Your task to perform on an android device: Do I have any events tomorrow? Image 0: 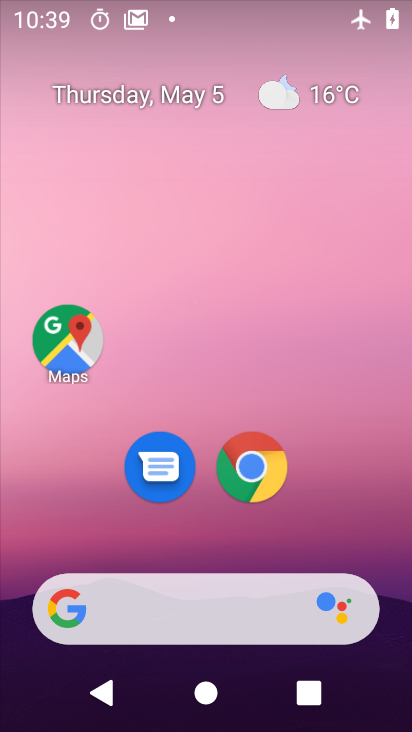
Step 0: drag from (208, 546) to (226, 80)
Your task to perform on an android device: Do I have any events tomorrow? Image 1: 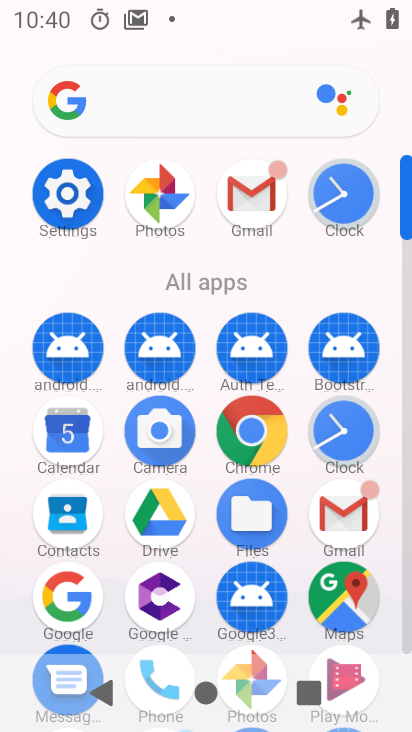
Step 1: click (53, 439)
Your task to perform on an android device: Do I have any events tomorrow? Image 2: 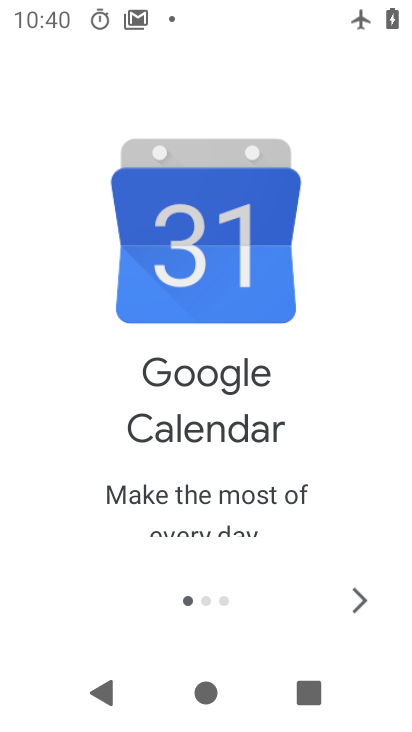
Step 2: click (358, 601)
Your task to perform on an android device: Do I have any events tomorrow? Image 3: 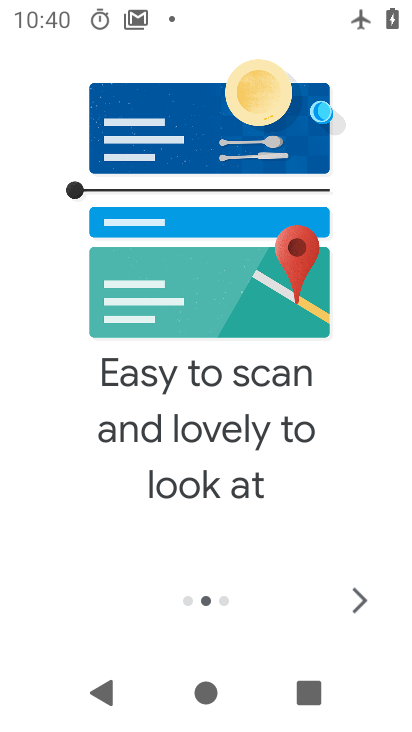
Step 3: click (358, 601)
Your task to perform on an android device: Do I have any events tomorrow? Image 4: 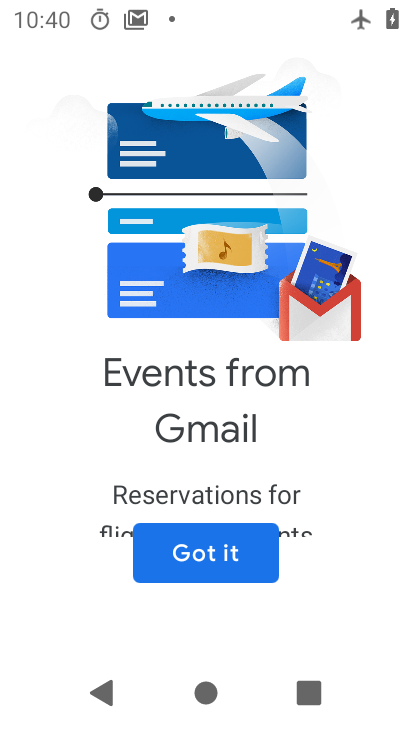
Step 4: click (239, 564)
Your task to perform on an android device: Do I have any events tomorrow? Image 5: 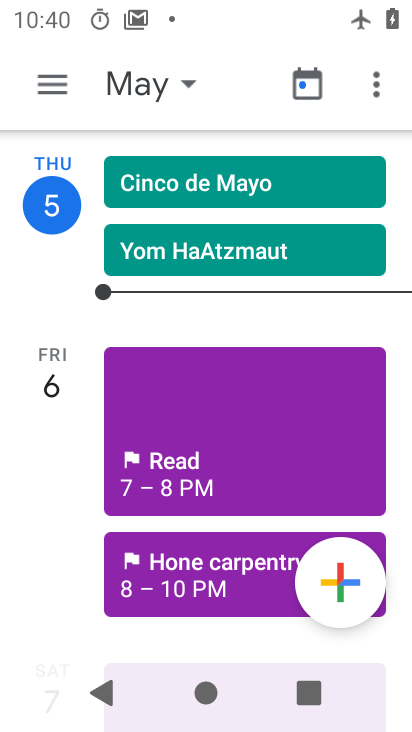
Step 5: click (44, 88)
Your task to perform on an android device: Do I have any events tomorrow? Image 6: 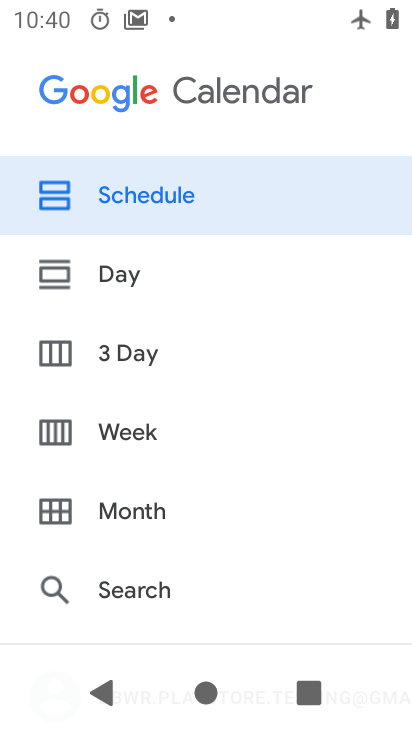
Step 6: drag from (158, 511) to (194, 246)
Your task to perform on an android device: Do I have any events tomorrow? Image 7: 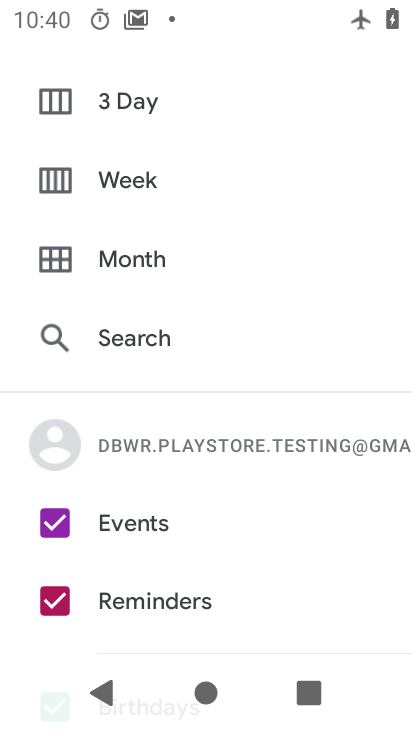
Step 7: drag from (214, 647) to (216, 335)
Your task to perform on an android device: Do I have any events tomorrow? Image 8: 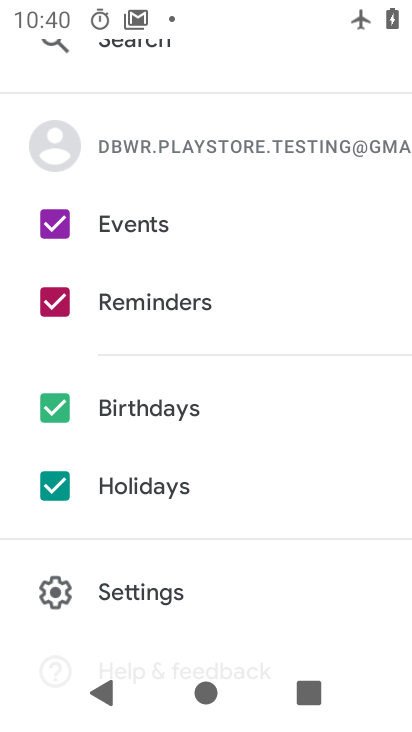
Step 8: click (51, 477)
Your task to perform on an android device: Do I have any events tomorrow? Image 9: 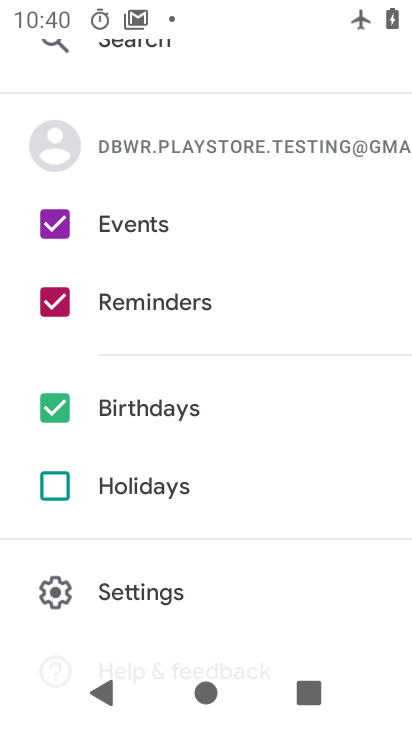
Step 9: click (58, 414)
Your task to perform on an android device: Do I have any events tomorrow? Image 10: 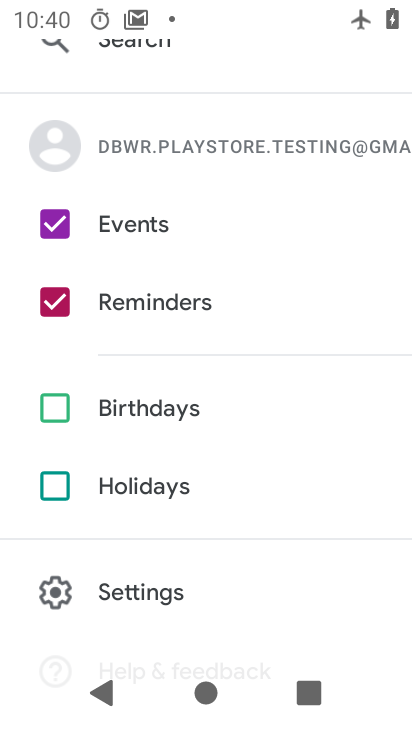
Step 10: click (56, 303)
Your task to perform on an android device: Do I have any events tomorrow? Image 11: 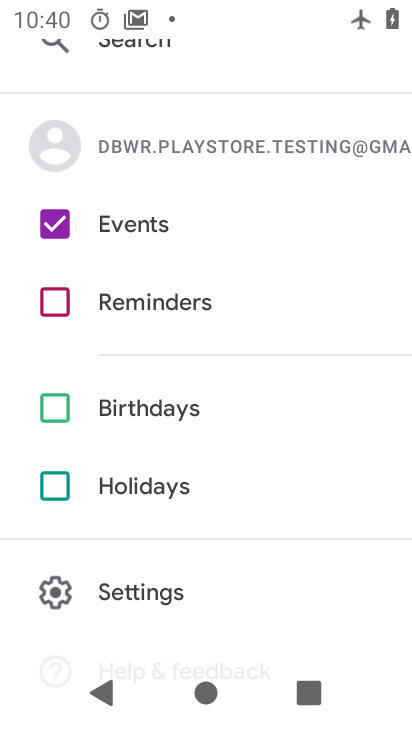
Step 11: press back button
Your task to perform on an android device: Do I have any events tomorrow? Image 12: 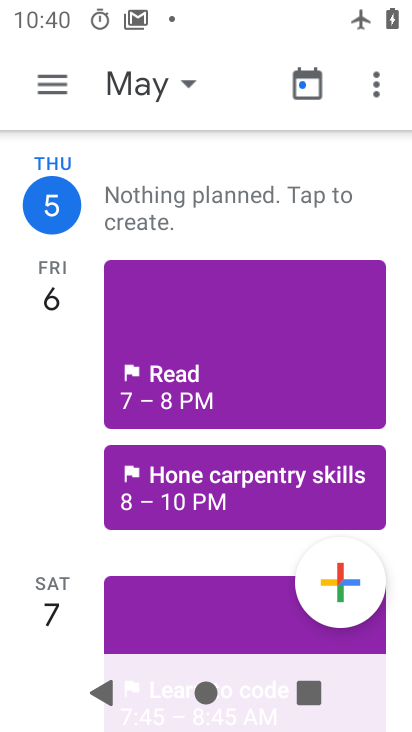
Step 12: click (43, 620)
Your task to perform on an android device: Do I have any events tomorrow? Image 13: 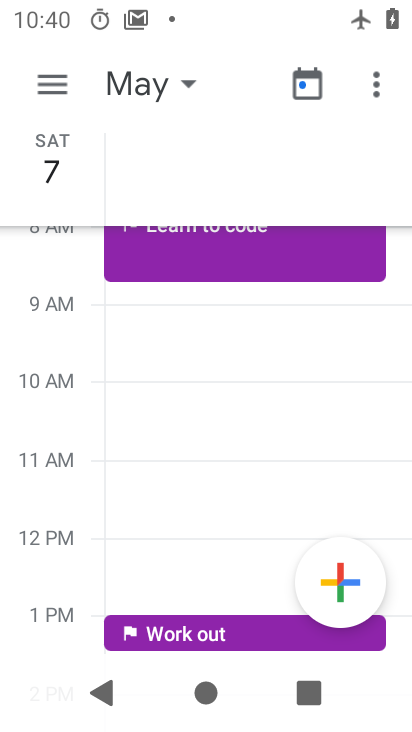
Step 13: task complete